Your task to perform on an android device: open device folders in google photos Image 0: 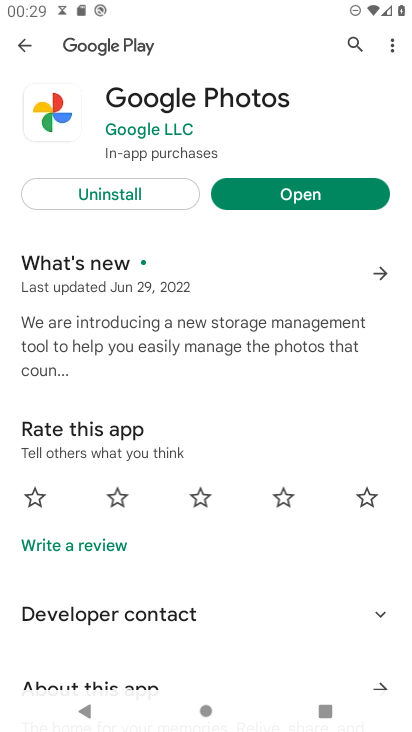
Step 0: press home button
Your task to perform on an android device: open device folders in google photos Image 1: 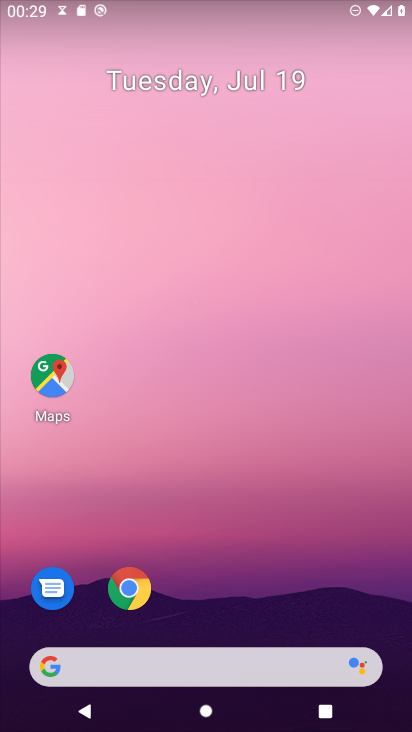
Step 1: drag from (305, 581) to (275, 52)
Your task to perform on an android device: open device folders in google photos Image 2: 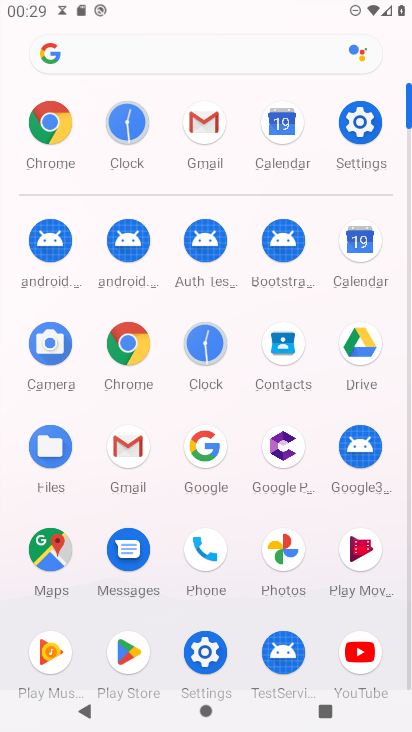
Step 2: click (284, 542)
Your task to perform on an android device: open device folders in google photos Image 3: 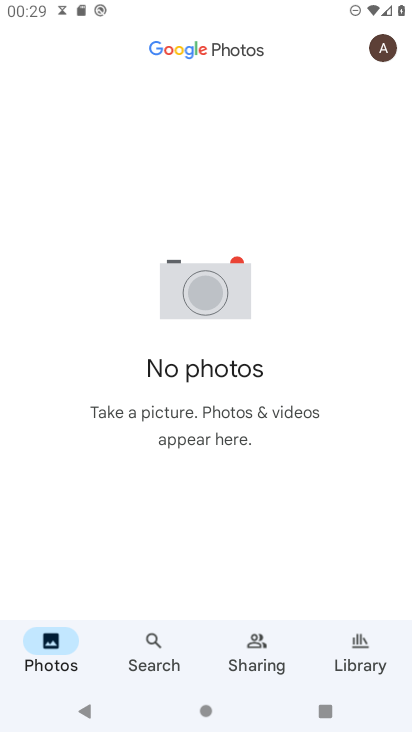
Step 3: click (157, 636)
Your task to perform on an android device: open device folders in google photos Image 4: 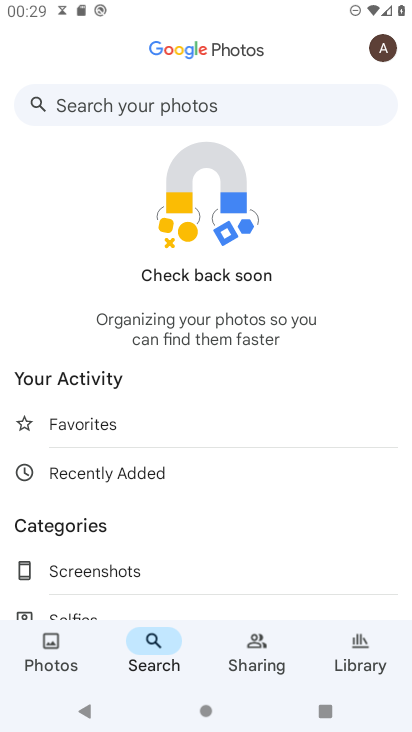
Step 4: click (135, 97)
Your task to perform on an android device: open device folders in google photos Image 5: 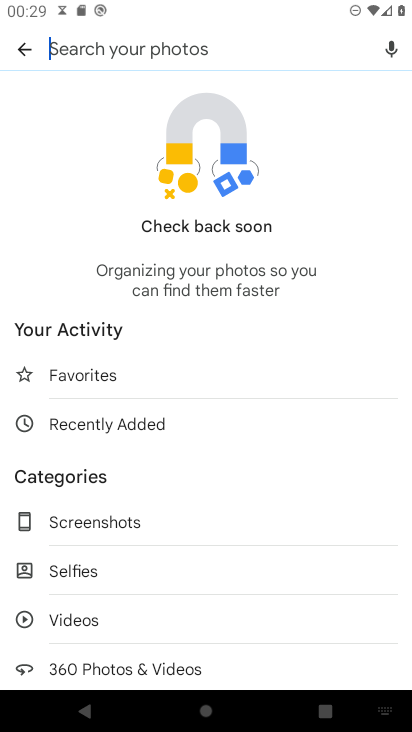
Step 5: type "device folders"
Your task to perform on an android device: open device folders in google photos Image 6: 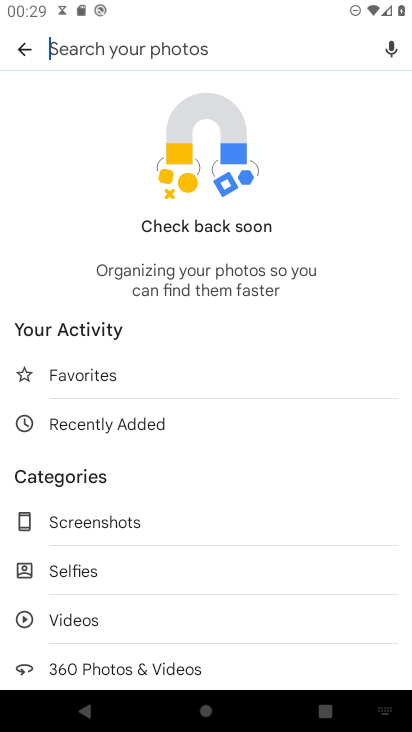
Step 6: click (138, 51)
Your task to perform on an android device: open device folders in google photos Image 7: 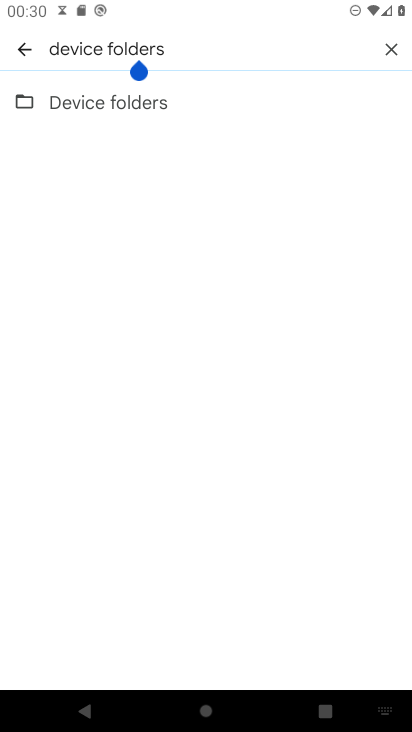
Step 7: click (118, 102)
Your task to perform on an android device: open device folders in google photos Image 8: 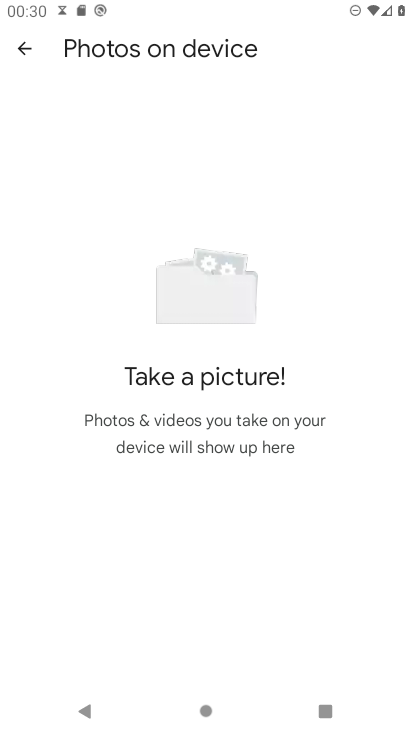
Step 8: task complete